Your task to perform on an android device: Open settings on Google Maps Image 0: 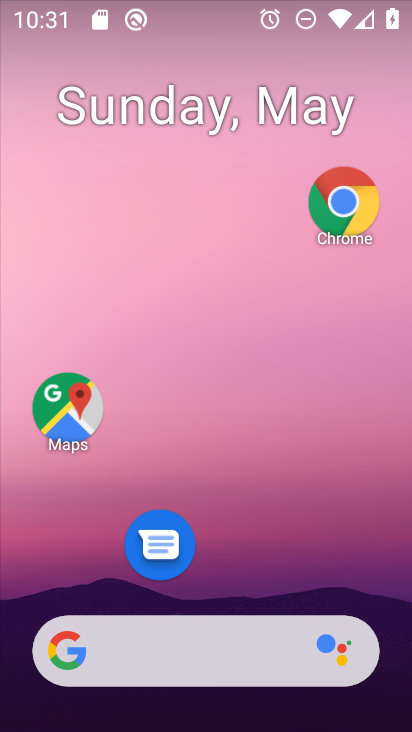
Step 0: drag from (263, 567) to (381, 88)
Your task to perform on an android device: Open settings on Google Maps Image 1: 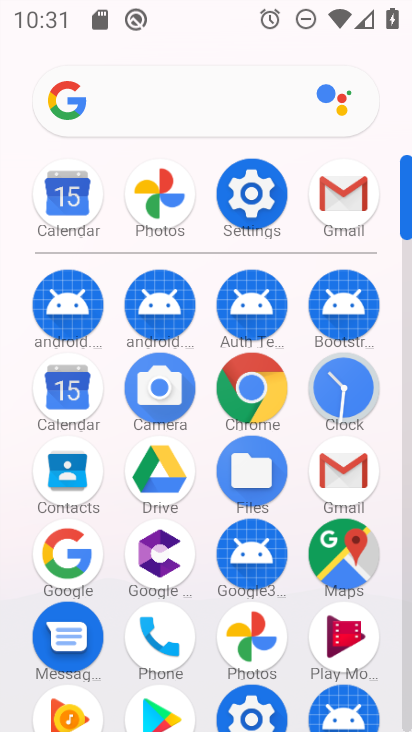
Step 1: click (360, 564)
Your task to perform on an android device: Open settings on Google Maps Image 2: 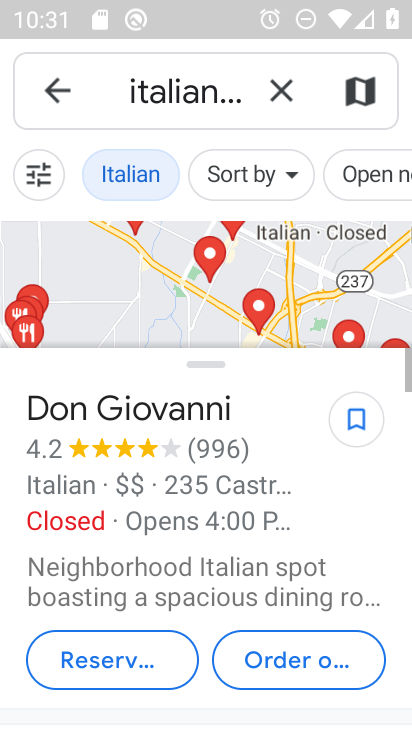
Step 2: click (68, 87)
Your task to perform on an android device: Open settings on Google Maps Image 3: 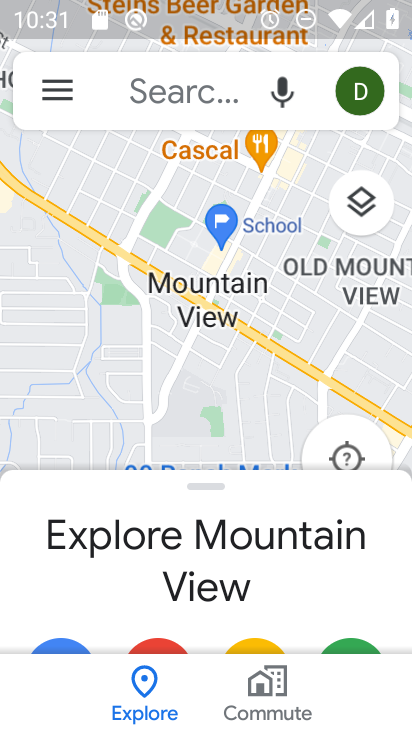
Step 3: click (75, 83)
Your task to perform on an android device: Open settings on Google Maps Image 4: 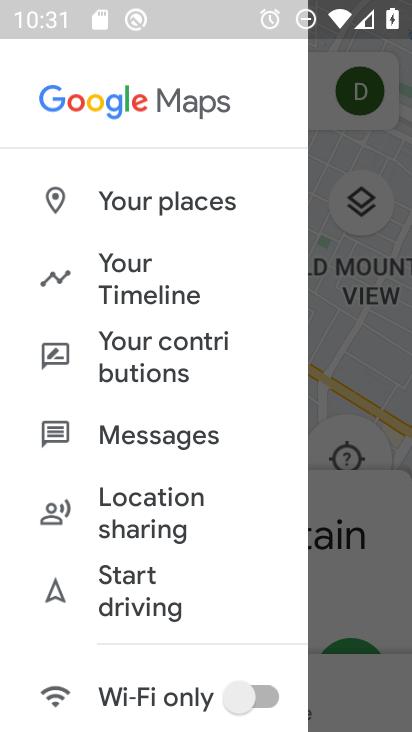
Step 4: drag from (176, 587) to (205, 264)
Your task to perform on an android device: Open settings on Google Maps Image 5: 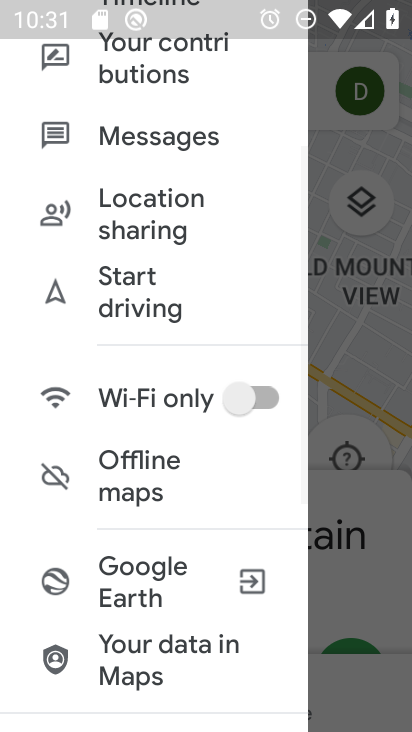
Step 5: drag from (151, 592) to (213, 314)
Your task to perform on an android device: Open settings on Google Maps Image 6: 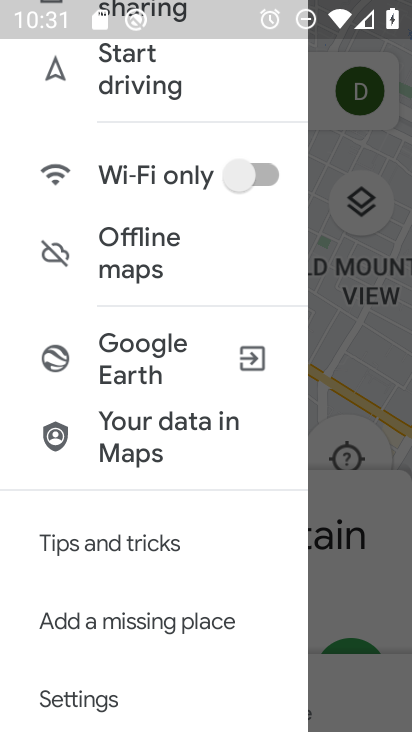
Step 6: drag from (140, 625) to (151, 419)
Your task to perform on an android device: Open settings on Google Maps Image 7: 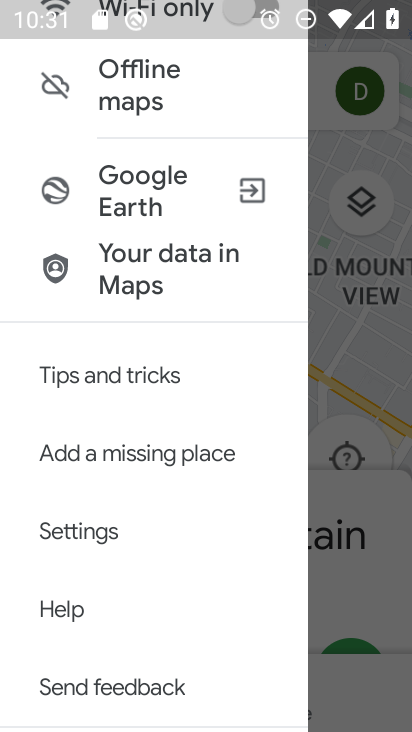
Step 7: click (114, 533)
Your task to perform on an android device: Open settings on Google Maps Image 8: 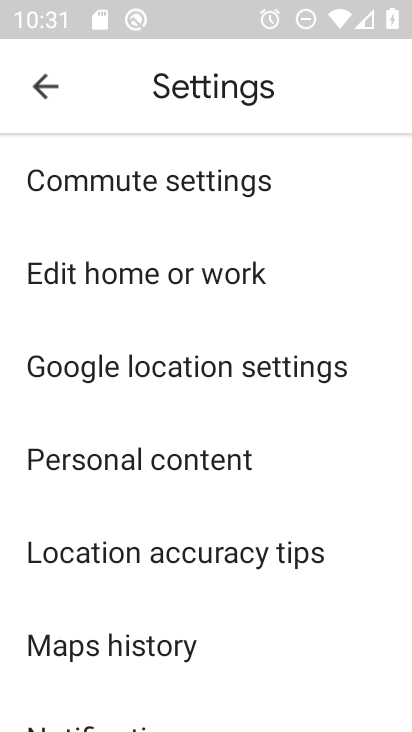
Step 8: task complete